Your task to perform on an android device: Is it going to rain tomorrow? Image 0: 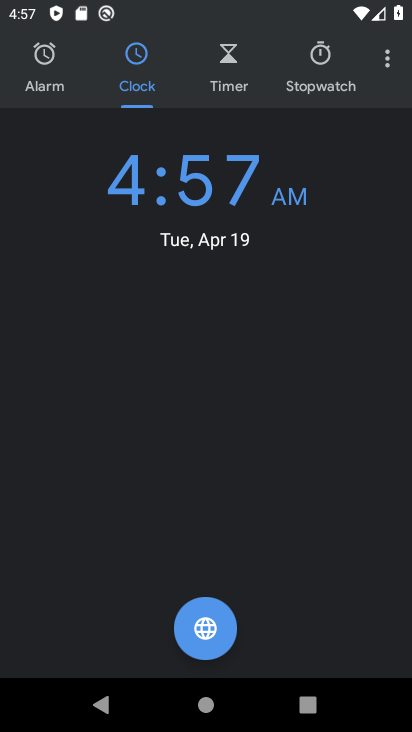
Step 0: click (213, 716)
Your task to perform on an android device: Is it going to rain tomorrow? Image 1: 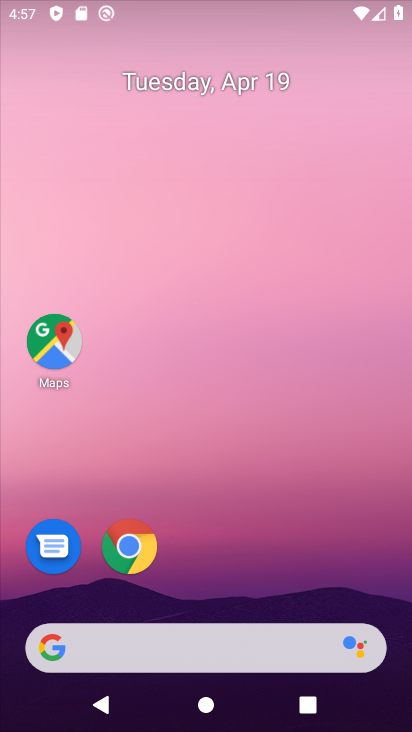
Step 1: drag from (276, 531) to (194, 66)
Your task to perform on an android device: Is it going to rain tomorrow? Image 2: 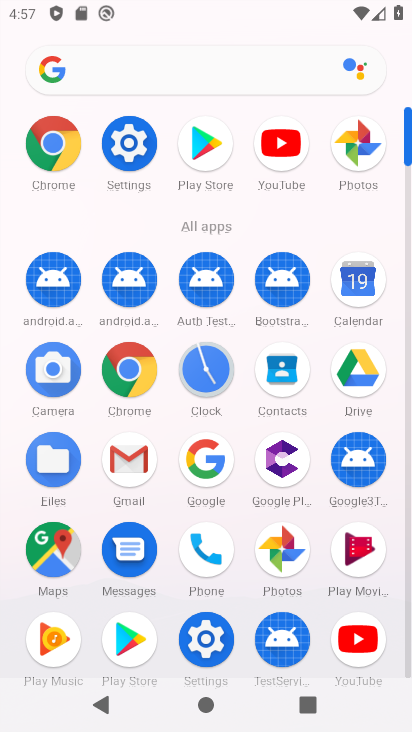
Step 2: click (92, 705)
Your task to perform on an android device: Is it going to rain tomorrow? Image 3: 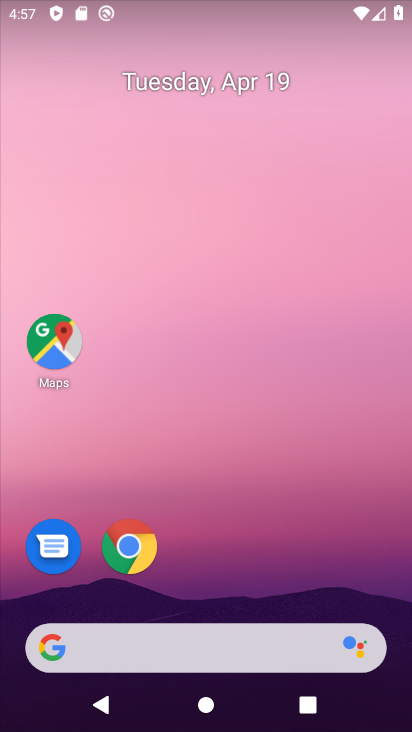
Step 3: drag from (15, 272) to (283, 310)
Your task to perform on an android device: Is it going to rain tomorrow? Image 4: 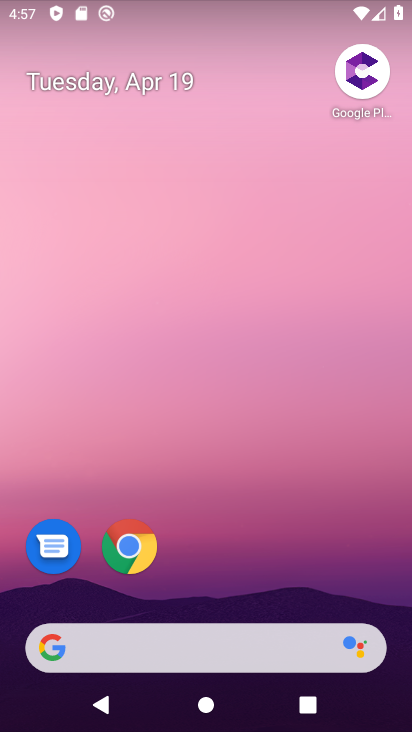
Step 4: drag from (12, 249) to (406, 239)
Your task to perform on an android device: Is it going to rain tomorrow? Image 5: 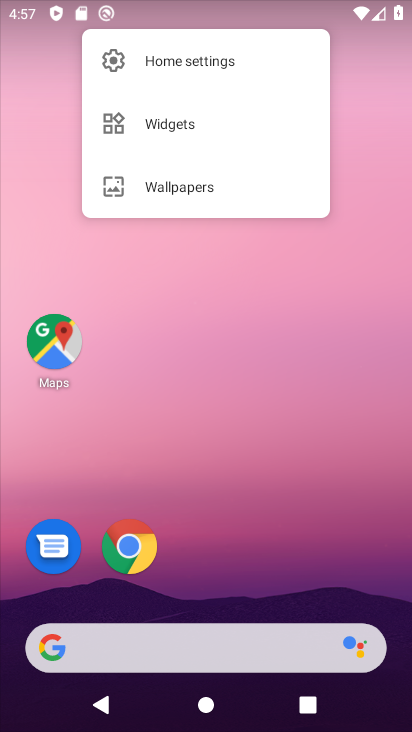
Step 5: click (151, 335)
Your task to perform on an android device: Is it going to rain tomorrow? Image 6: 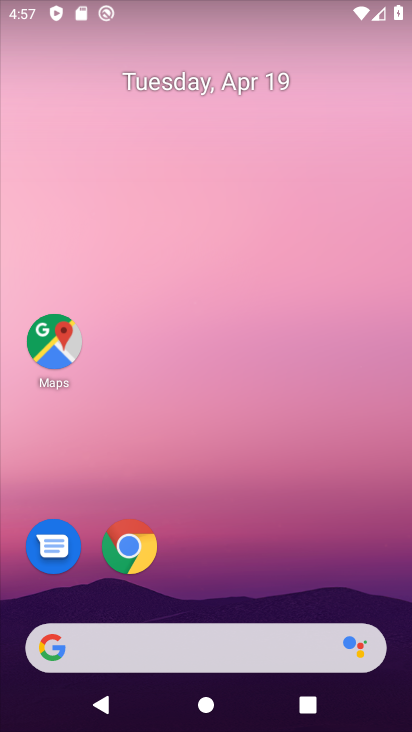
Step 6: drag from (19, 229) to (391, 214)
Your task to perform on an android device: Is it going to rain tomorrow? Image 7: 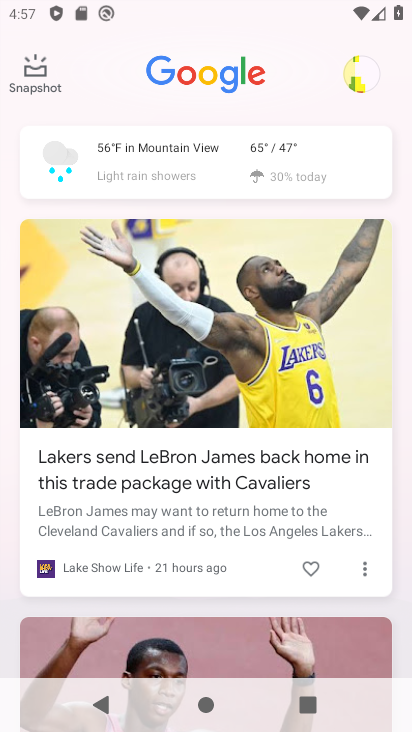
Step 7: click (309, 721)
Your task to perform on an android device: Is it going to rain tomorrow? Image 8: 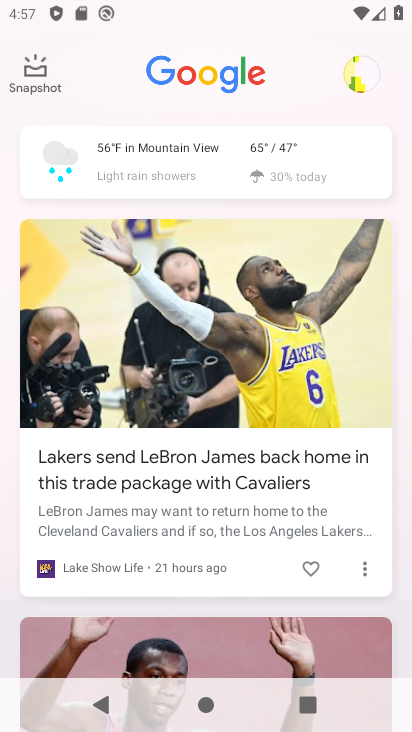
Step 8: click (168, 166)
Your task to perform on an android device: Is it going to rain tomorrow? Image 9: 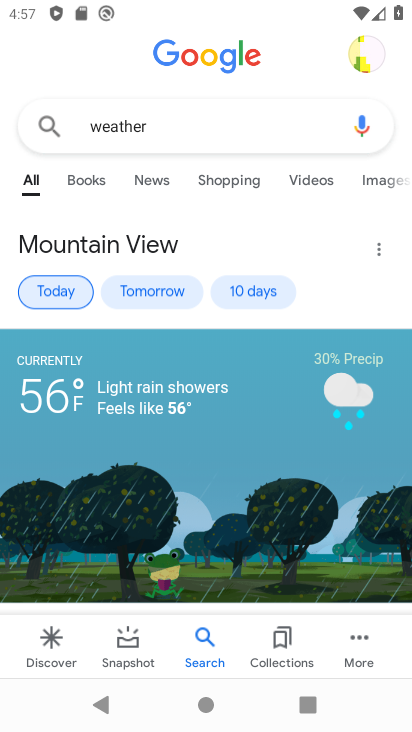
Step 9: task complete